Your task to perform on an android device: visit the assistant section in the google photos Image 0: 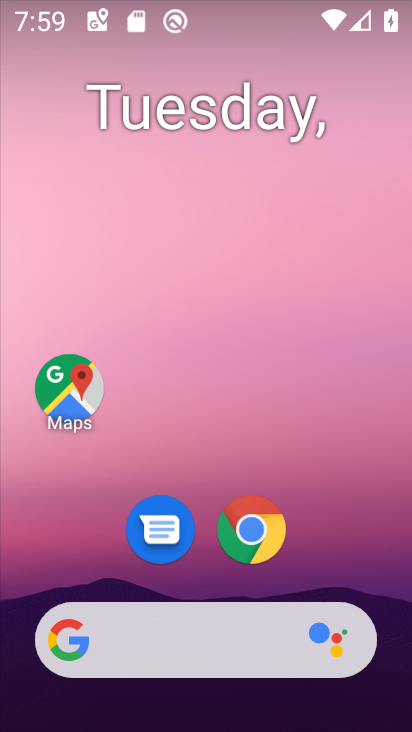
Step 0: drag from (211, 583) to (260, 2)
Your task to perform on an android device: visit the assistant section in the google photos Image 1: 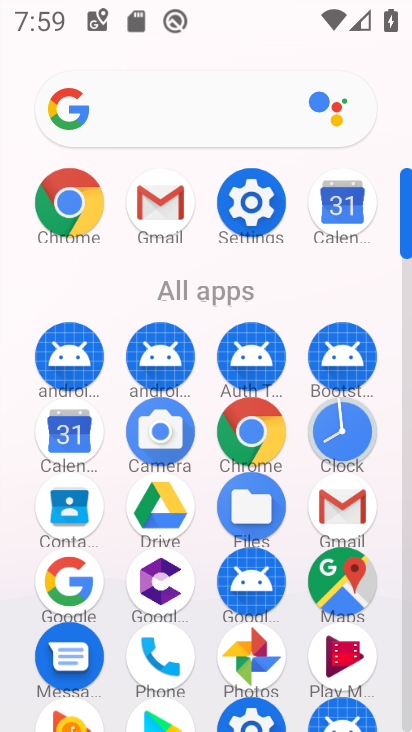
Step 1: click (250, 661)
Your task to perform on an android device: visit the assistant section in the google photos Image 2: 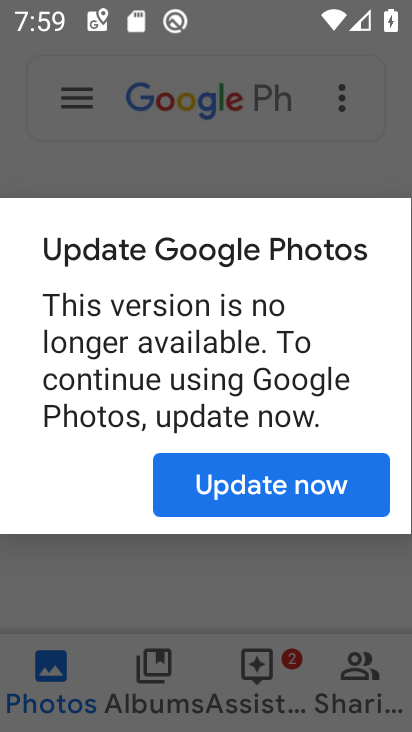
Step 2: click (209, 589)
Your task to perform on an android device: visit the assistant section in the google photos Image 3: 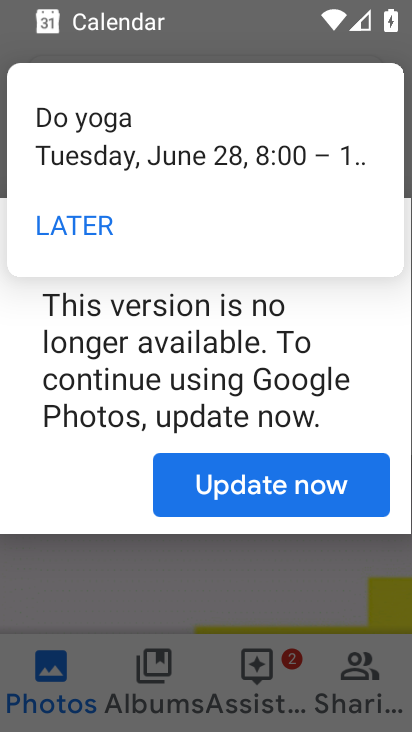
Step 3: click (253, 489)
Your task to perform on an android device: visit the assistant section in the google photos Image 4: 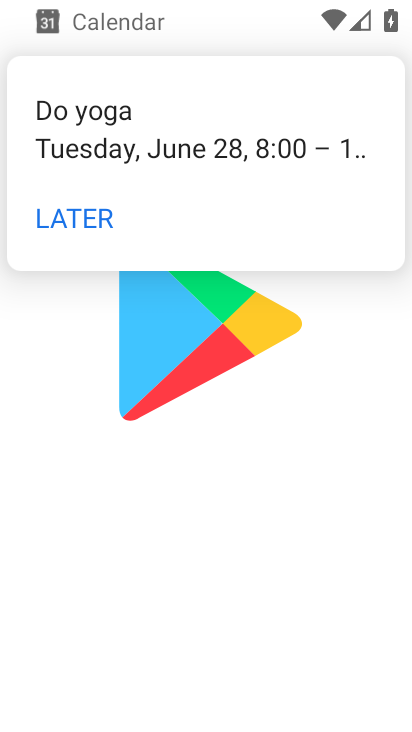
Step 4: click (61, 216)
Your task to perform on an android device: visit the assistant section in the google photos Image 5: 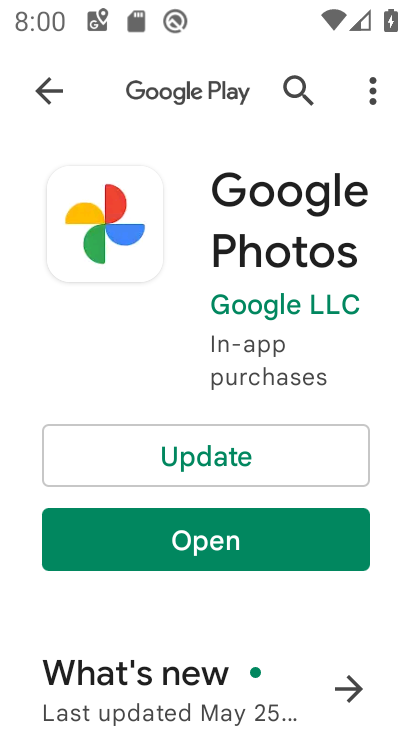
Step 5: click (177, 549)
Your task to perform on an android device: visit the assistant section in the google photos Image 6: 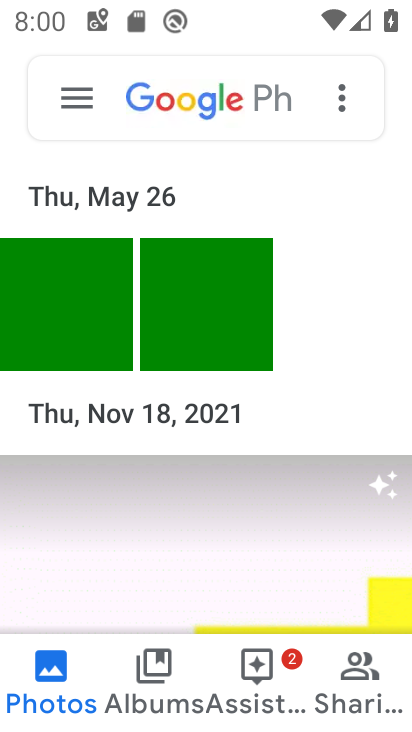
Step 6: click (240, 685)
Your task to perform on an android device: visit the assistant section in the google photos Image 7: 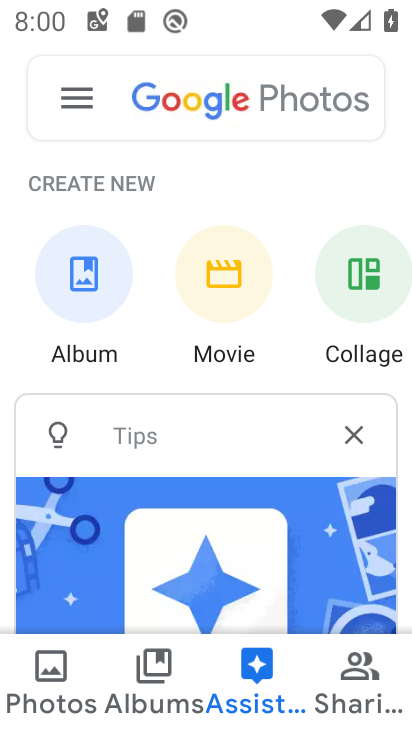
Step 7: task complete